Your task to perform on an android device: Search for flights from Mexico city to Seattle Image 0: 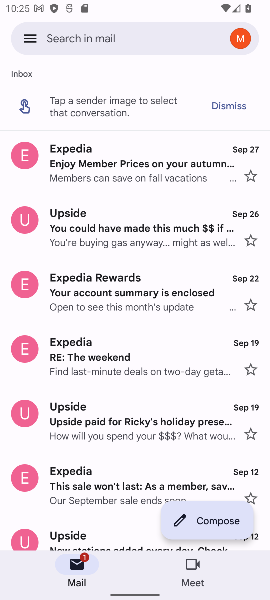
Step 0: press home button
Your task to perform on an android device: Search for flights from Mexico city to Seattle Image 1: 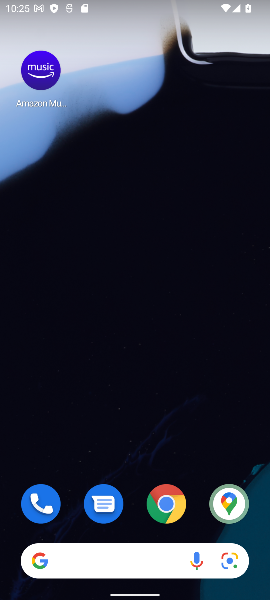
Step 1: drag from (195, 518) to (197, 138)
Your task to perform on an android device: Search for flights from Mexico city to Seattle Image 2: 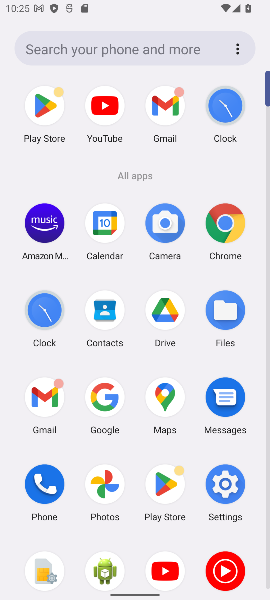
Step 2: click (230, 223)
Your task to perform on an android device: Search for flights from Mexico city to Seattle Image 3: 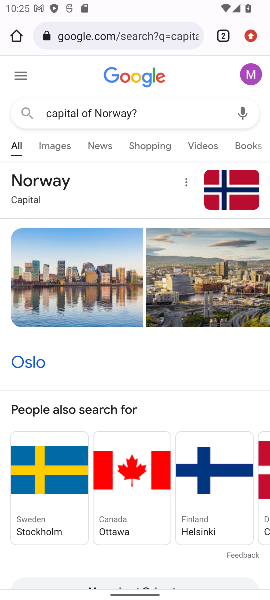
Step 3: click (115, 22)
Your task to perform on an android device: Search for flights from Mexico city to Seattle Image 4: 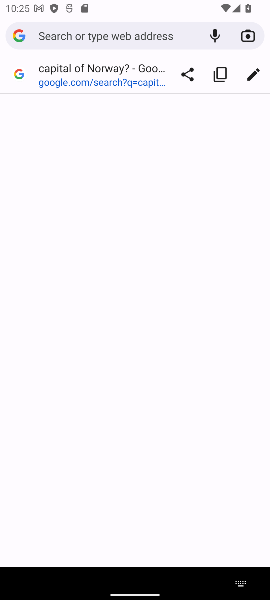
Step 4: type "flights from Mexico city to Seattle"
Your task to perform on an android device: Search for flights from Mexico city to Seattle Image 5: 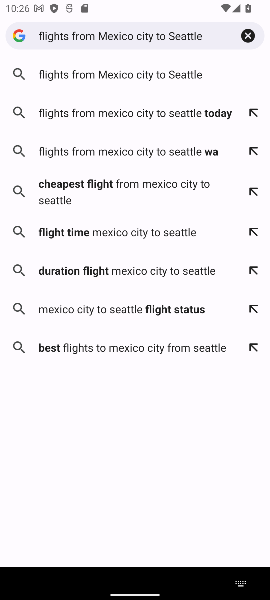
Step 5: click (98, 84)
Your task to perform on an android device: Search for flights from Mexico city to Seattle Image 6: 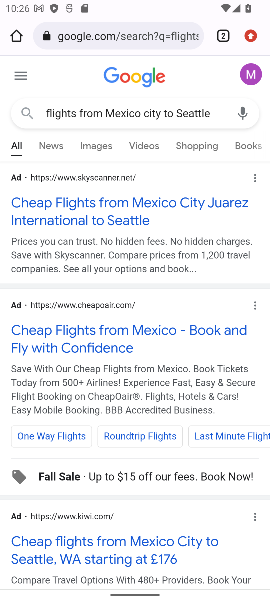
Step 6: click (77, 206)
Your task to perform on an android device: Search for flights from Mexico city to Seattle Image 7: 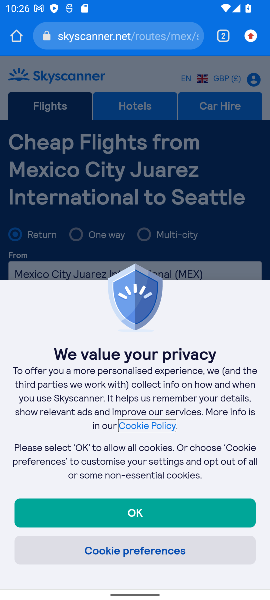
Step 7: click (135, 512)
Your task to perform on an android device: Search for flights from Mexico city to Seattle Image 8: 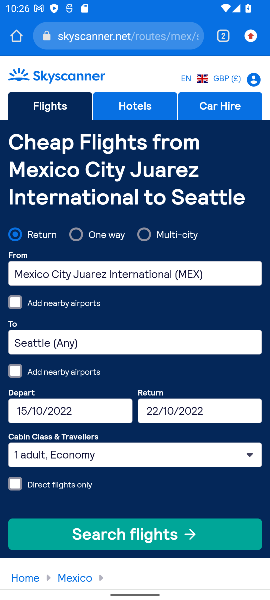
Step 8: click (120, 532)
Your task to perform on an android device: Search for flights from Mexico city to Seattle Image 9: 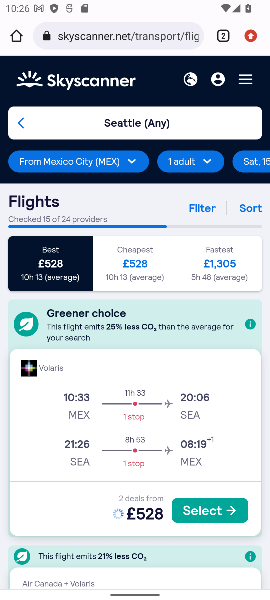
Step 9: task complete